Your task to perform on an android device: delete a single message in the gmail app Image 0: 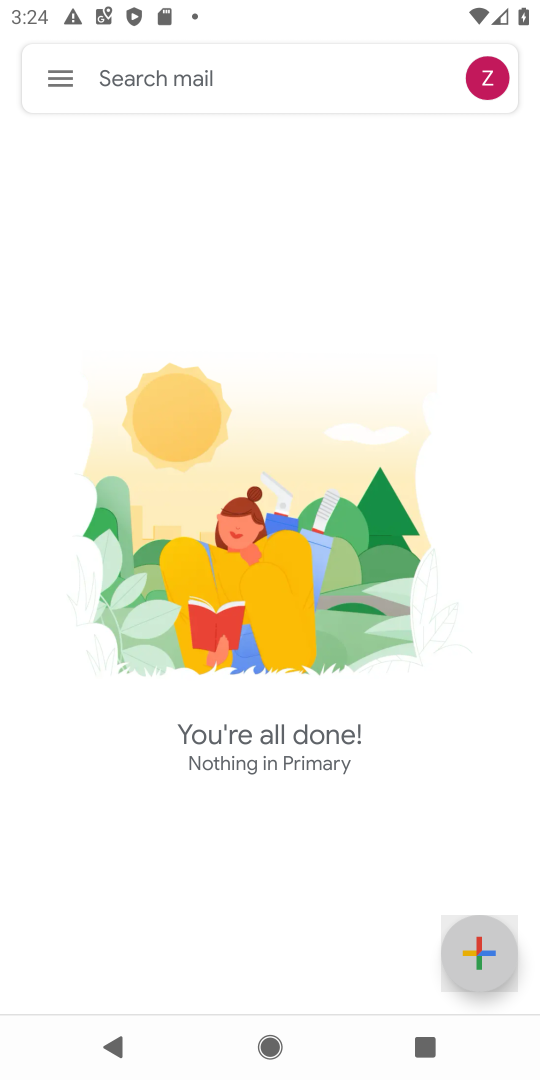
Step 0: click (55, 72)
Your task to perform on an android device: delete a single message in the gmail app Image 1: 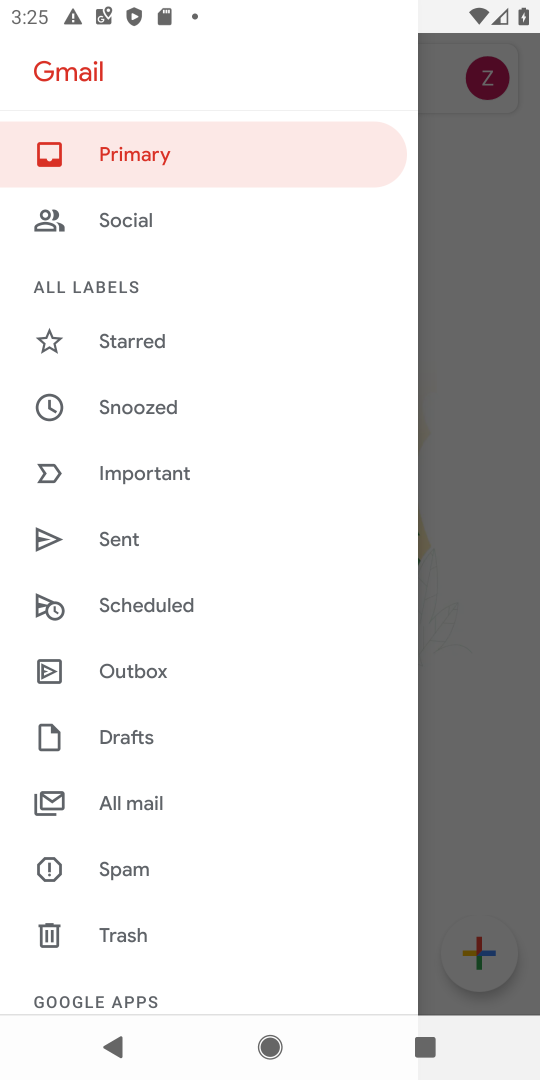
Step 1: click (153, 805)
Your task to perform on an android device: delete a single message in the gmail app Image 2: 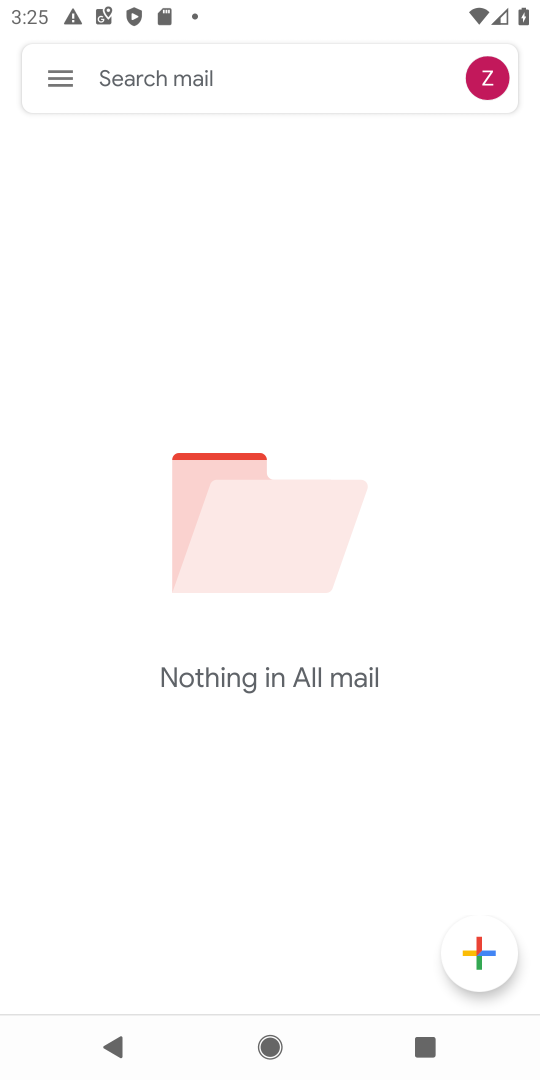
Step 2: task complete